Your task to perform on an android device: Open Chrome and go to the settings page Image 0: 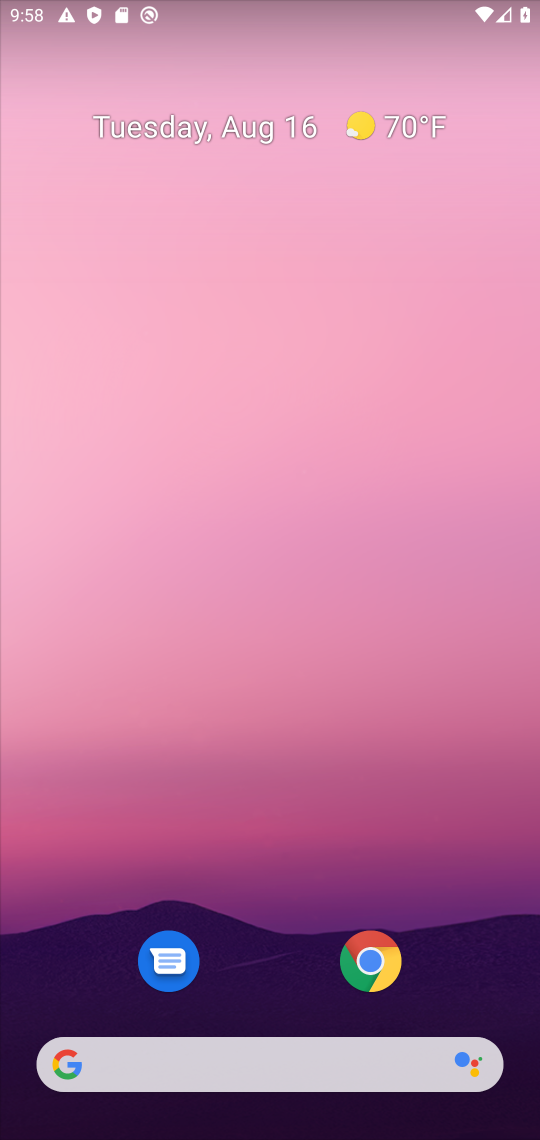
Step 0: click (253, 185)
Your task to perform on an android device: Open Chrome and go to the settings page Image 1: 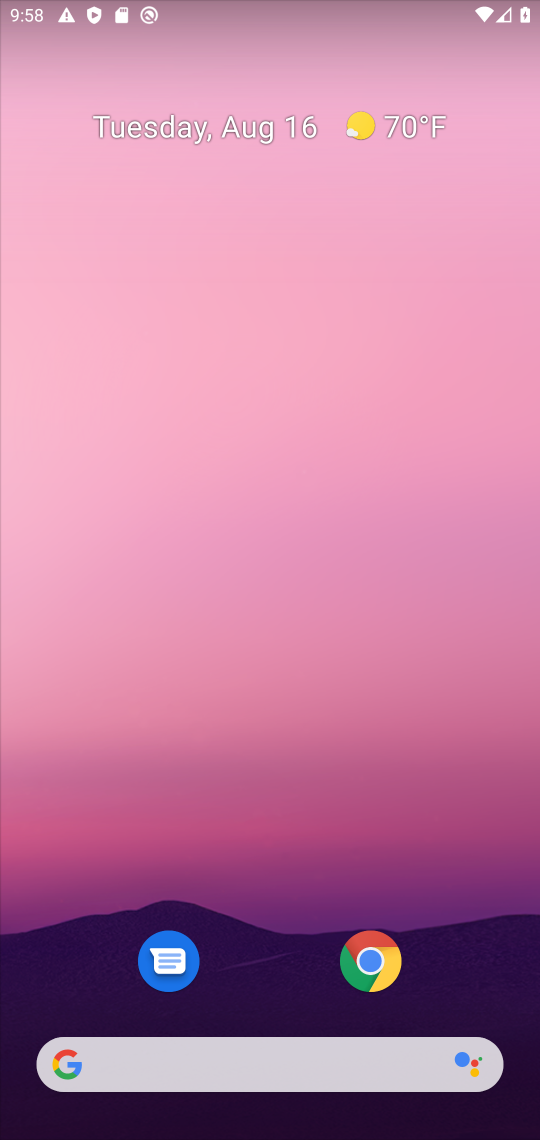
Step 1: click (363, 955)
Your task to perform on an android device: Open Chrome and go to the settings page Image 2: 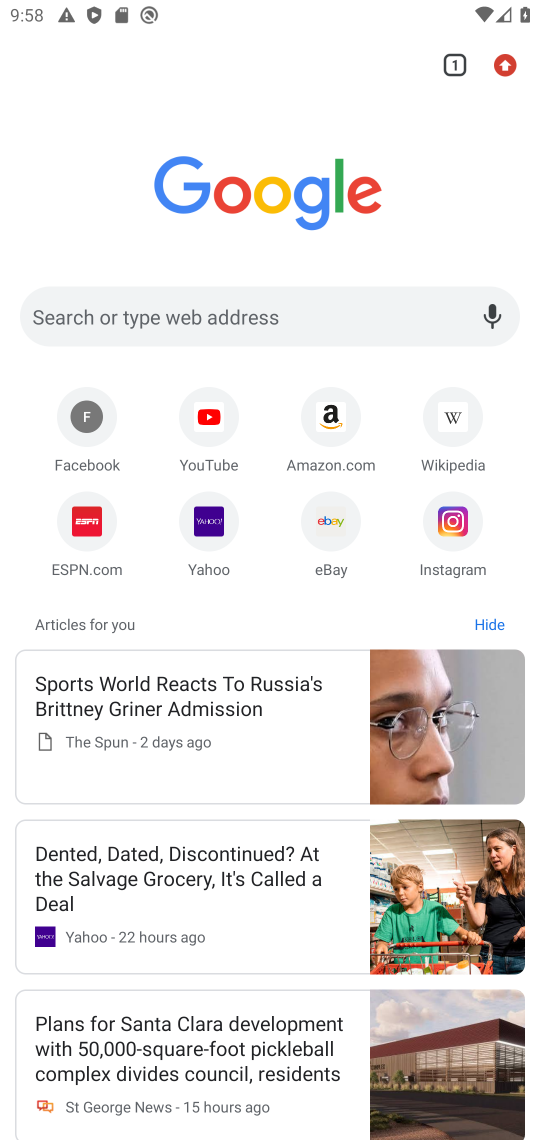
Step 2: click (508, 53)
Your task to perform on an android device: Open Chrome and go to the settings page Image 3: 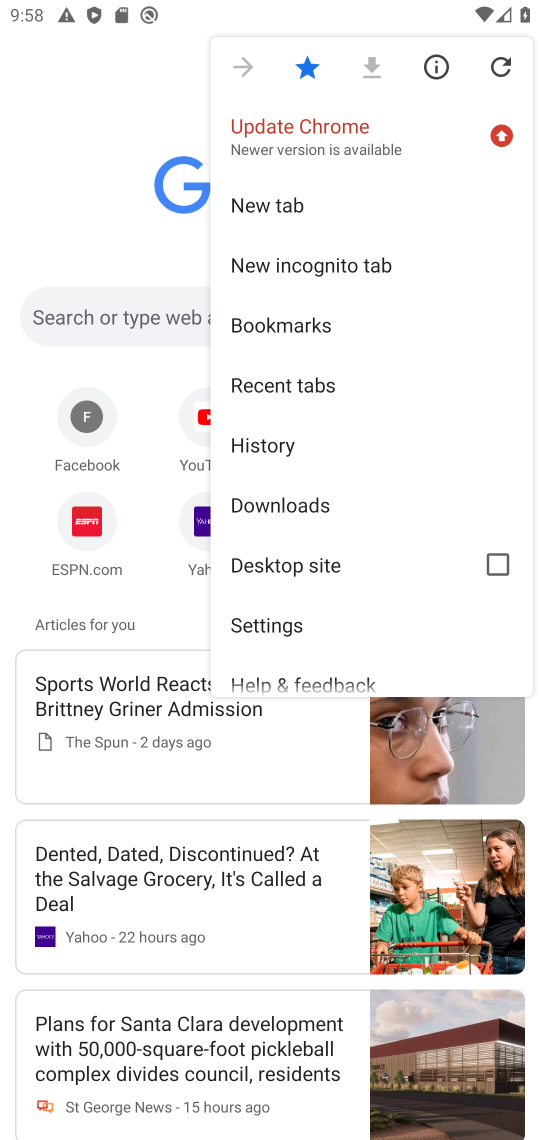
Step 3: click (297, 613)
Your task to perform on an android device: Open Chrome and go to the settings page Image 4: 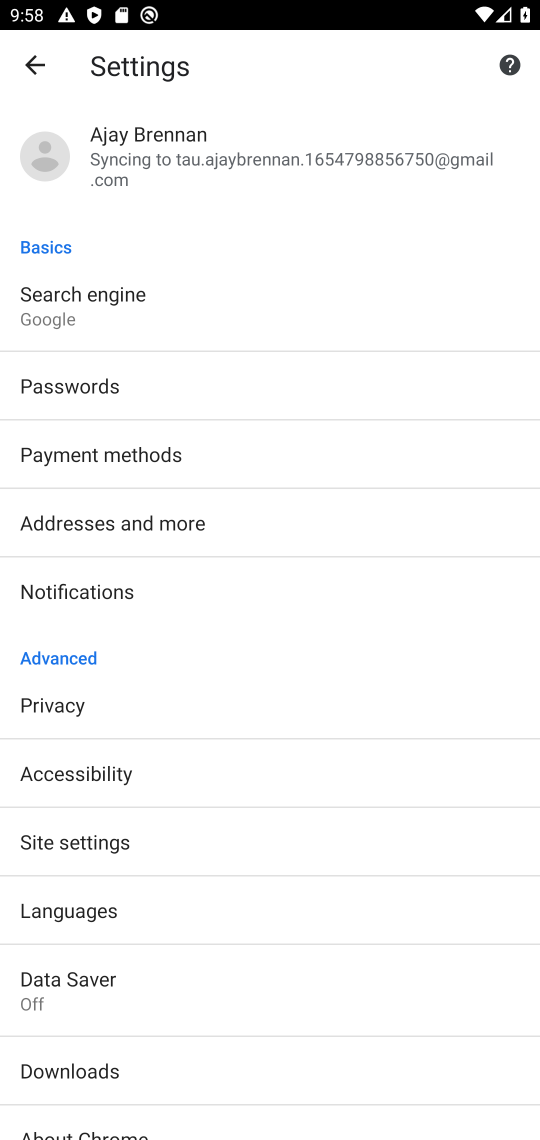
Step 4: task complete